Your task to perform on an android device: Open the Play Movies app and select the watchlist tab. Image 0: 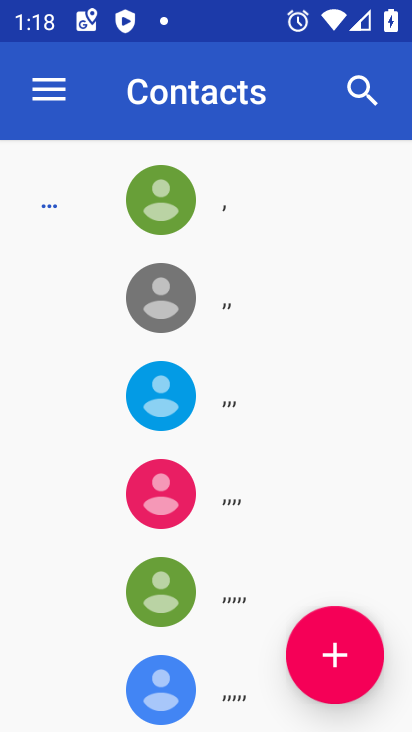
Step 0: press home button
Your task to perform on an android device: Open the Play Movies app and select the watchlist tab. Image 1: 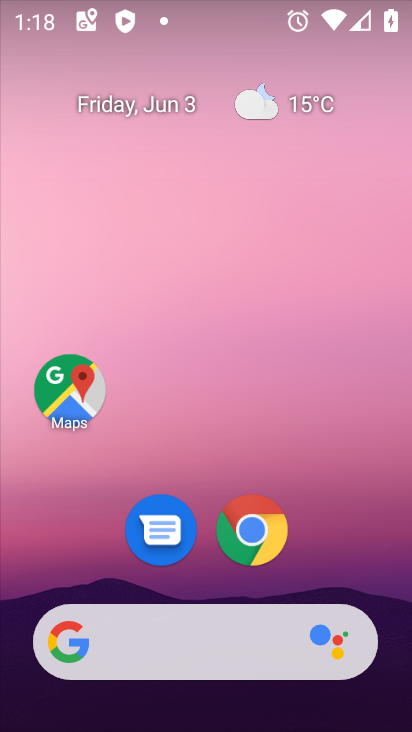
Step 1: drag from (355, 491) to (352, 144)
Your task to perform on an android device: Open the Play Movies app and select the watchlist tab. Image 2: 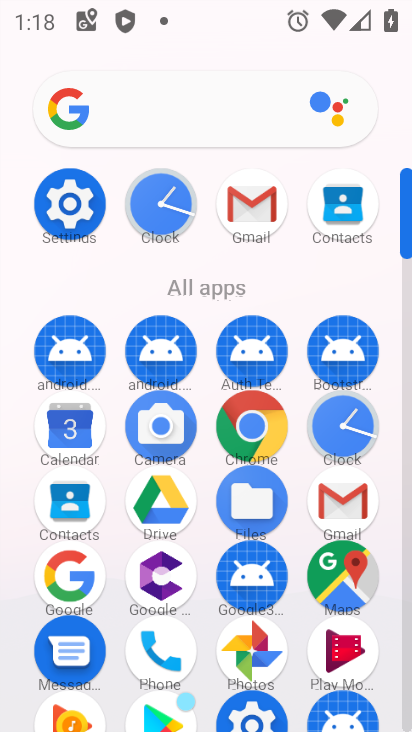
Step 2: click (343, 657)
Your task to perform on an android device: Open the Play Movies app and select the watchlist tab. Image 3: 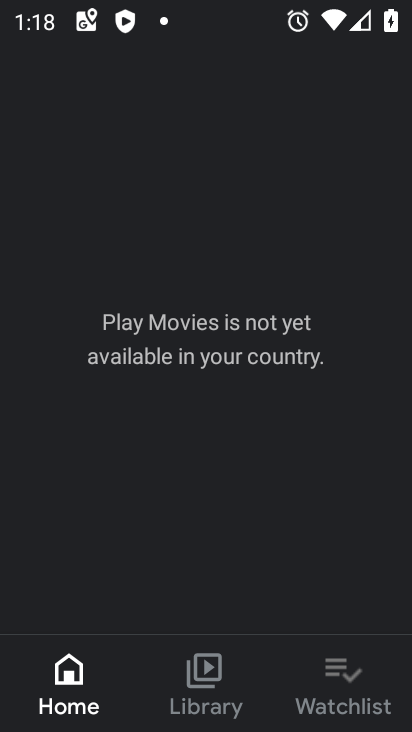
Step 3: click (343, 671)
Your task to perform on an android device: Open the Play Movies app and select the watchlist tab. Image 4: 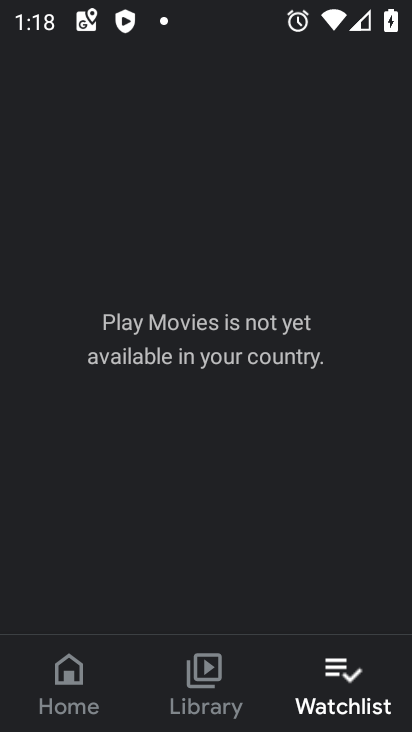
Step 4: task complete